Your task to perform on an android device: Open Youtube and go to the subscriptions tab Image 0: 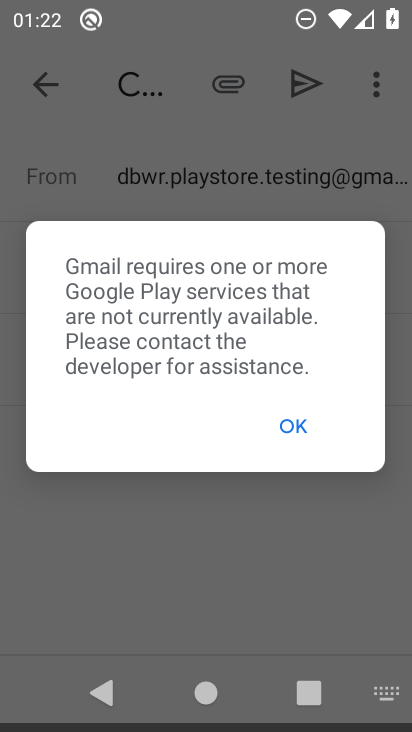
Step 0: click (410, 573)
Your task to perform on an android device: Open Youtube and go to the subscriptions tab Image 1: 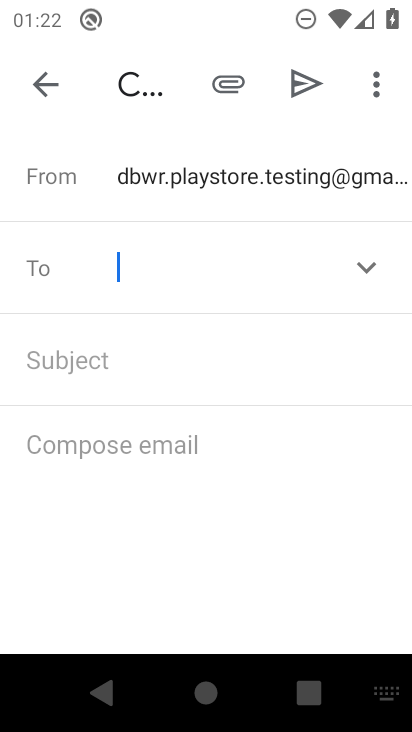
Step 1: press home button
Your task to perform on an android device: Open Youtube and go to the subscriptions tab Image 2: 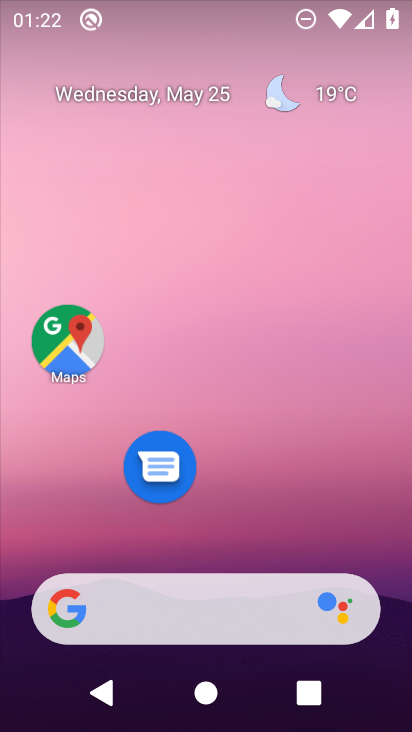
Step 2: drag from (283, 421) to (387, 4)
Your task to perform on an android device: Open Youtube and go to the subscriptions tab Image 3: 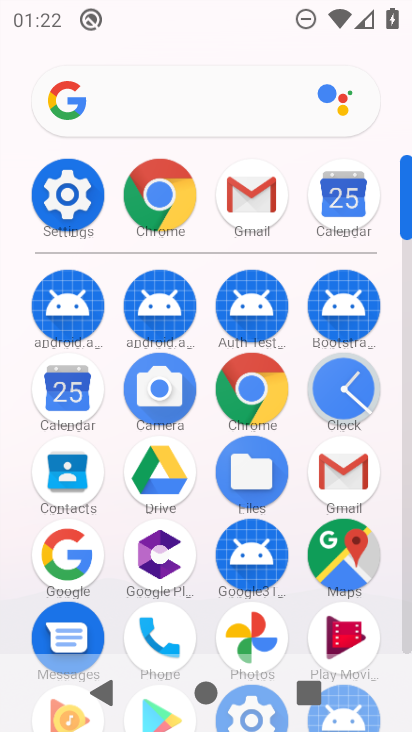
Step 3: drag from (213, 599) to (288, 214)
Your task to perform on an android device: Open Youtube and go to the subscriptions tab Image 4: 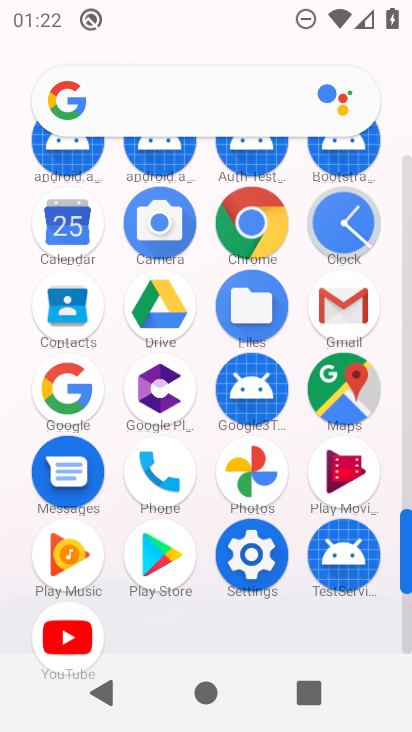
Step 4: click (72, 616)
Your task to perform on an android device: Open Youtube and go to the subscriptions tab Image 5: 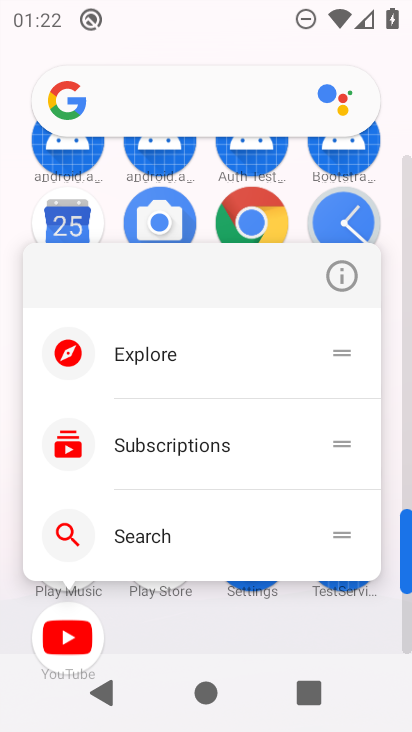
Step 5: click (152, 434)
Your task to perform on an android device: Open Youtube and go to the subscriptions tab Image 6: 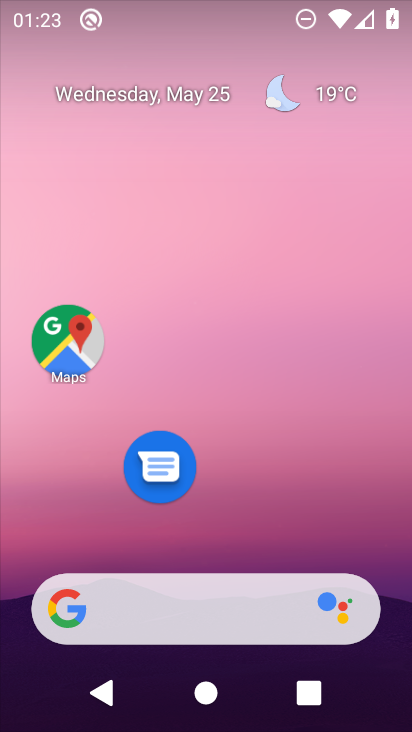
Step 6: drag from (239, 530) to (395, 8)
Your task to perform on an android device: Open Youtube and go to the subscriptions tab Image 7: 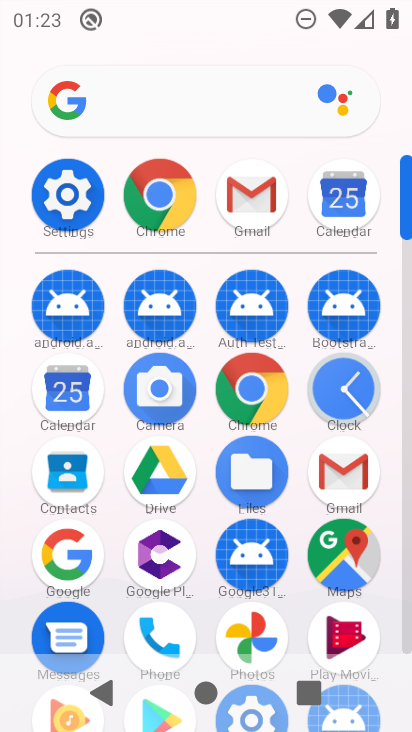
Step 7: drag from (176, 592) to (271, 145)
Your task to perform on an android device: Open Youtube and go to the subscriptions tab Image 8: 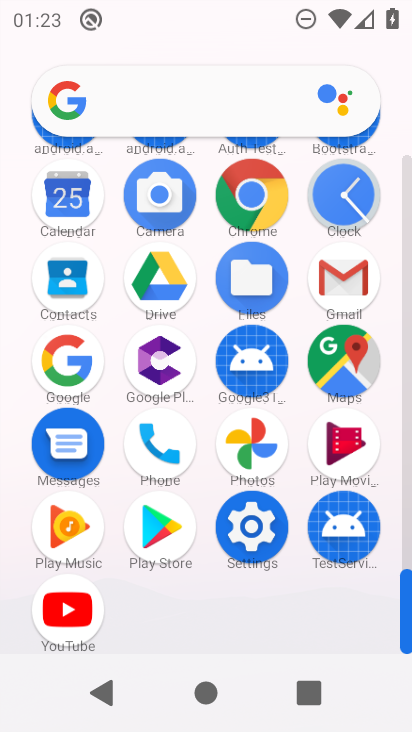
Step 8: click (69, 600)
Your task to perform on an android device: Open Youtube and go to the subscriptions tab Image 9: 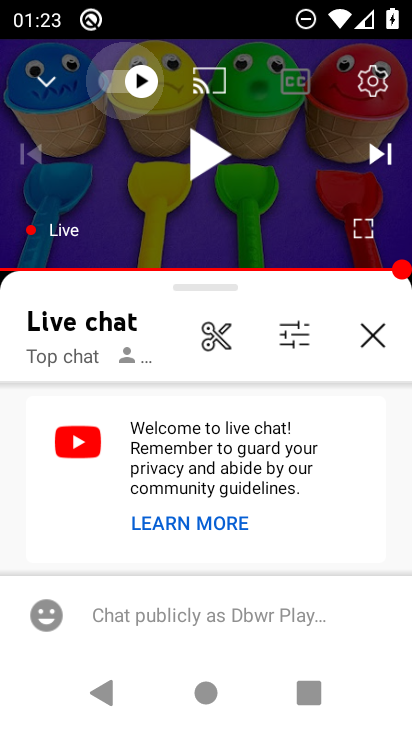
Step 9: drag from (276, 496) to (370, 72)
Your task to perform on an android device: Open Youtube and go to the subscriptions tab Image 10: 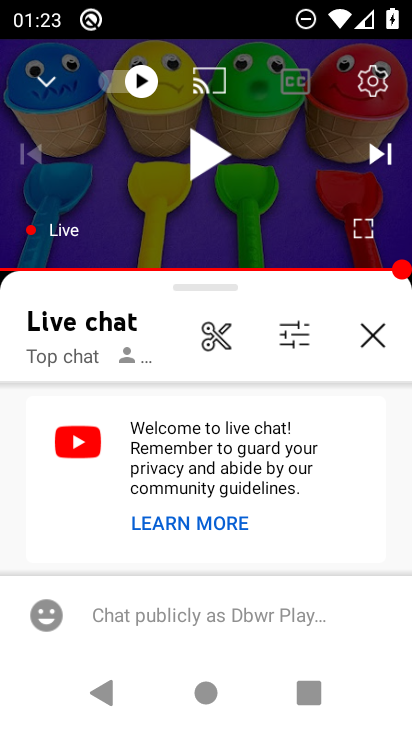
Step 10: drag from (350, 425) to (314, 730)
Your task to perform on an android device: Open Youtube and go to the subscriptions tab Image 11: 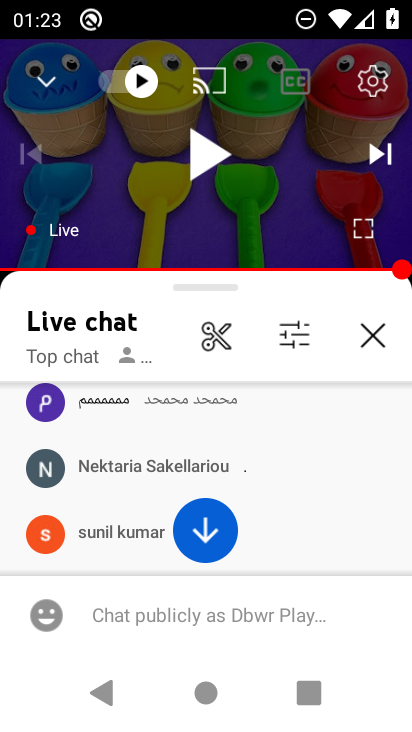
Step 11: drag from (236, 159) to (318, 726)
Your task to perform on an android device: Open Youtube and go to the subscriptions tab Image 12: 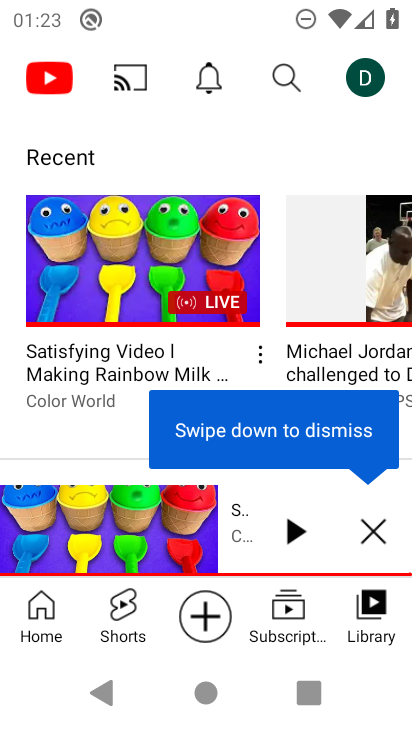
Step 12: click (376, 540)
Your task to perform on an android device: Open Youtube and go to the subscriptions tab Image 13: 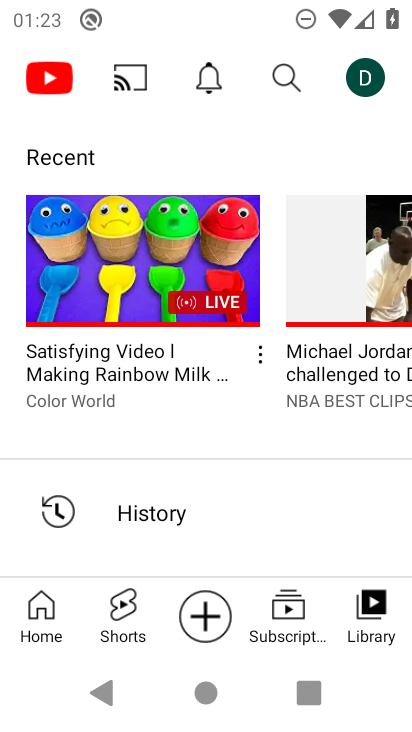
Step 13: click (278, 612)
Your task to perform on an android device: Open Youtube and go to the subscriptions tab Image 14: 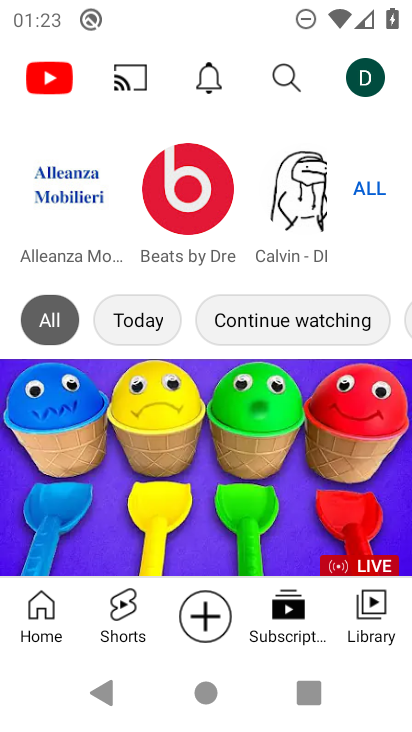
Step 14: task complete